Your task to perform on an android device: Go to Yahoo.com Image 0: 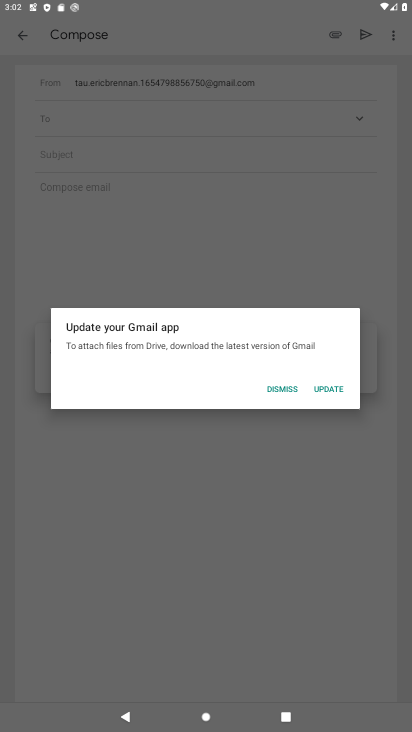
Step 0: press home button
Your task to perform on an android device: Go to Yahoo.com Image 1: 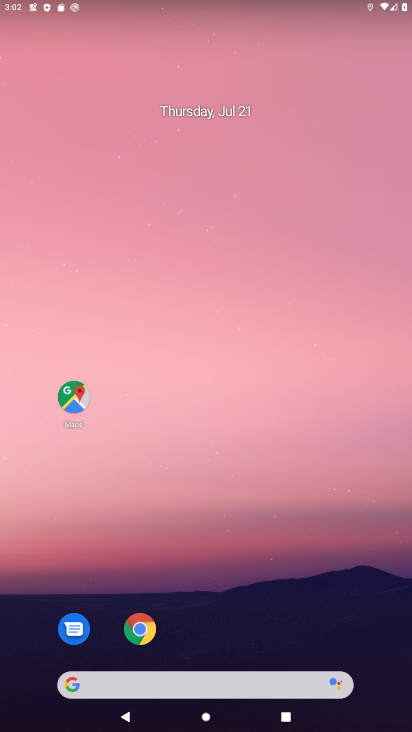
Step 1: click (148, 623)
Your task to perform on an android device: Go to Yahoo.com Image 2: 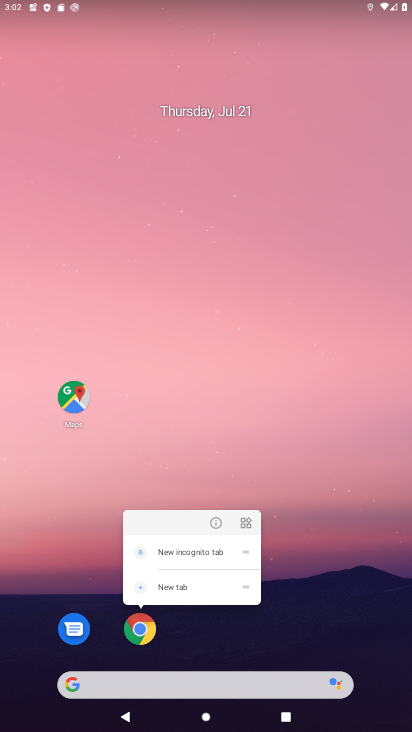
Step 2: click (148, 623)
Your task to perform on an android device: Go to Yahoo.com Image 3: 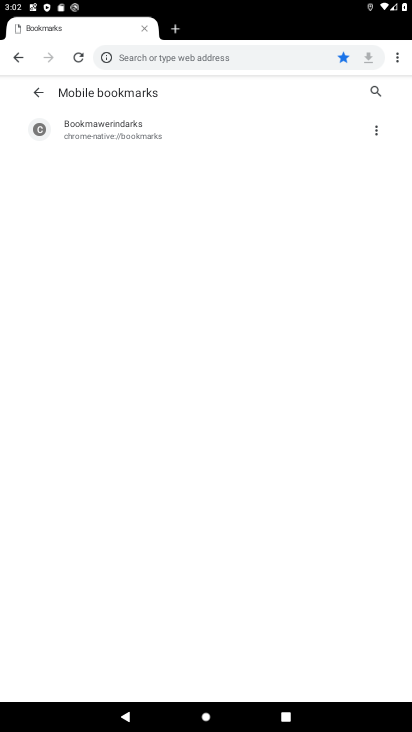
Step 3: click (177, 58)
Your task to perform on an android device: Go to Yahoo.com Image 4: 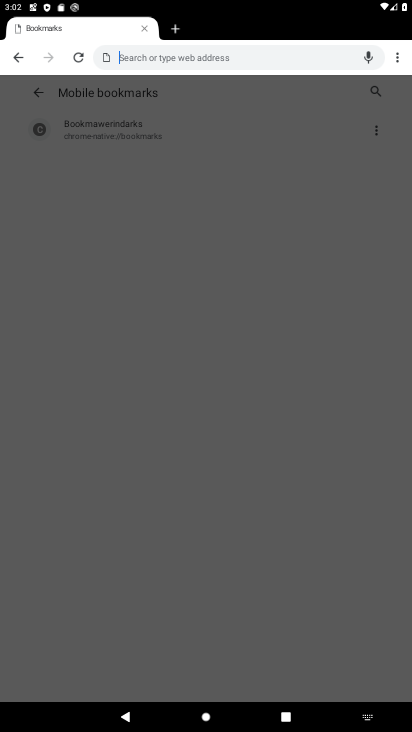
Step 4: type "yahoo.com"
Your task to perform on an android device: Go to Yahoo.com Image 5: 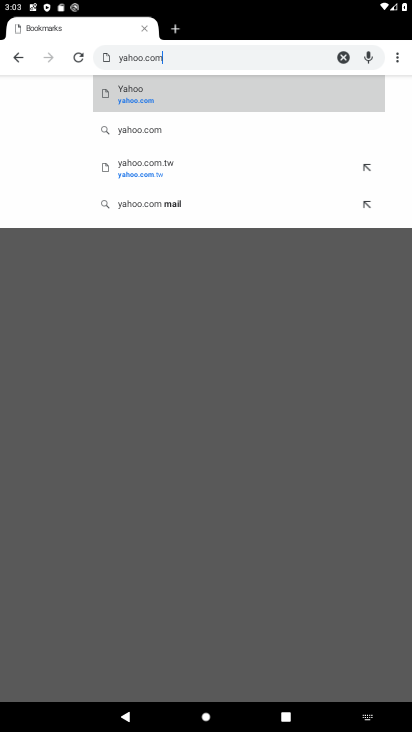
Step 5: click (164, 101)
Your task to perform on an android device: Go to Yahoo.com Image 6: 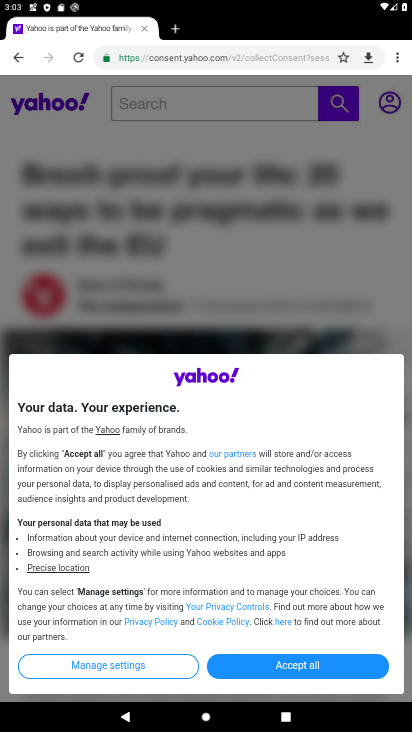
Step 6: task complete